Your task to perform on an android device: check data usage Image 0: 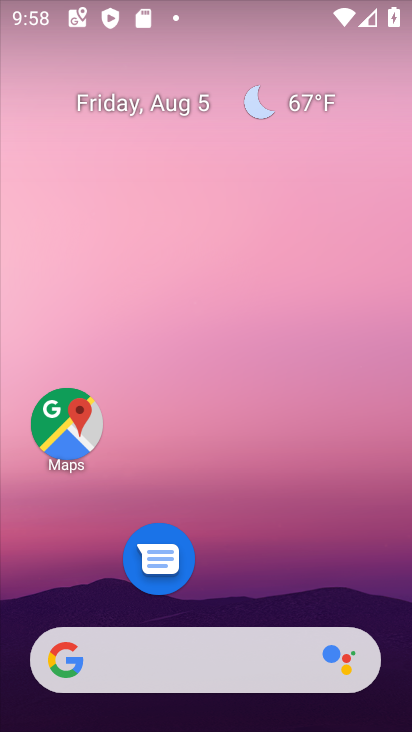
Step 0: drag from (211, 607) to (257, 145)
Your task to perform on an android device: check data usage Image 1: 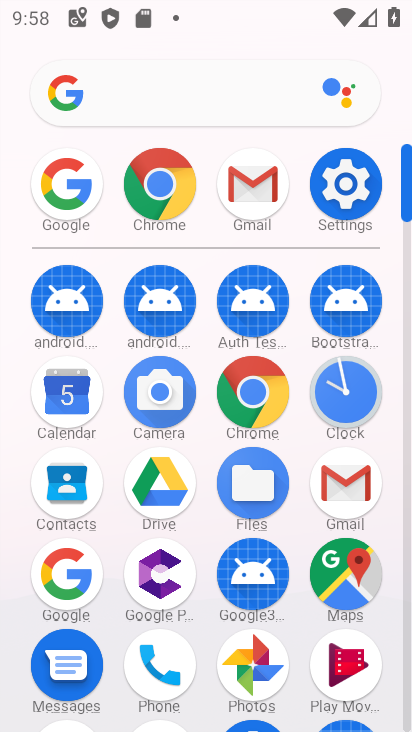
Step 1: click (344, 190)
Your task to perform on an android device: check data usage Image 2: 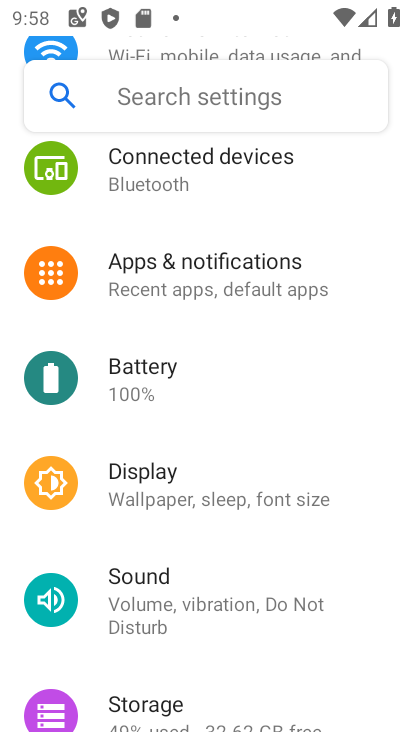
Step 2: drag from (197, 325) to (143, 542)
Your task to perform on an android device: check data usage Image 3: 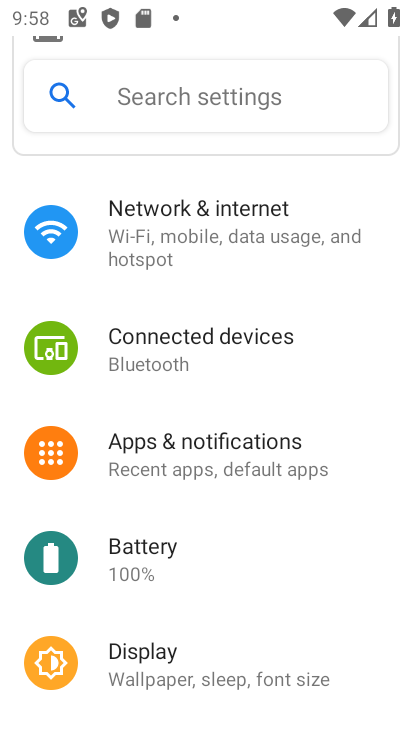
Step 3: click (212, 248)
Your task to perform on an android device: check data usage Image 4: 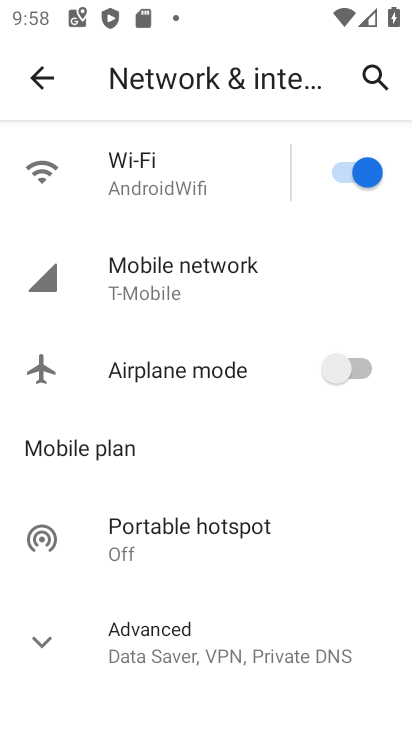
Step 4: click (177, 274)
Your task to perform on an android device: check data usage Image 5: 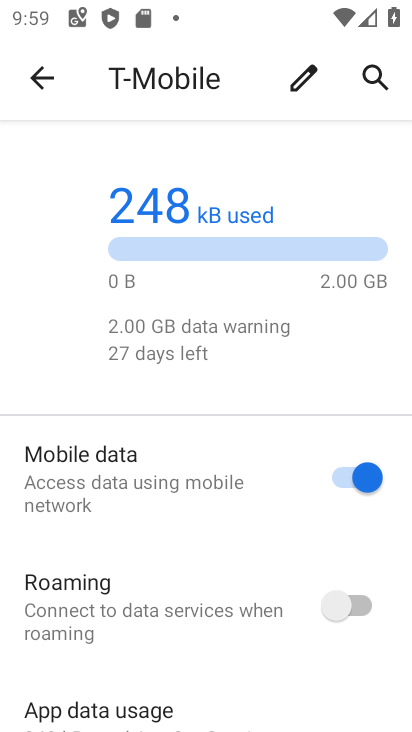
Step 5: drag from (95, 568) to (107, 234)
Your task to perform on an android device: check data usage Image 6: 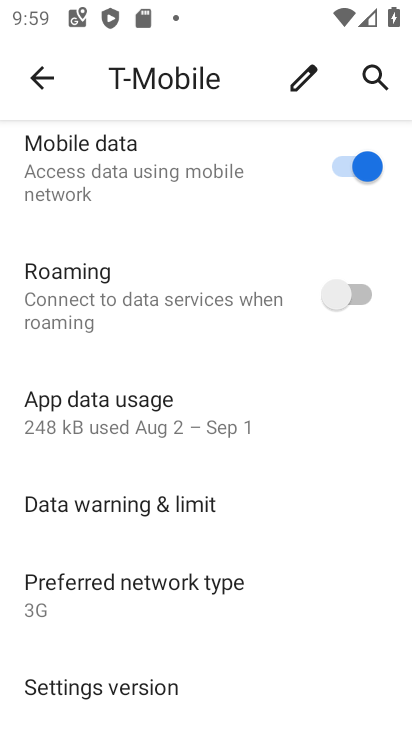
Step 6: click (110, 410)
Your task to perform on an android device: check data usage Image 7: 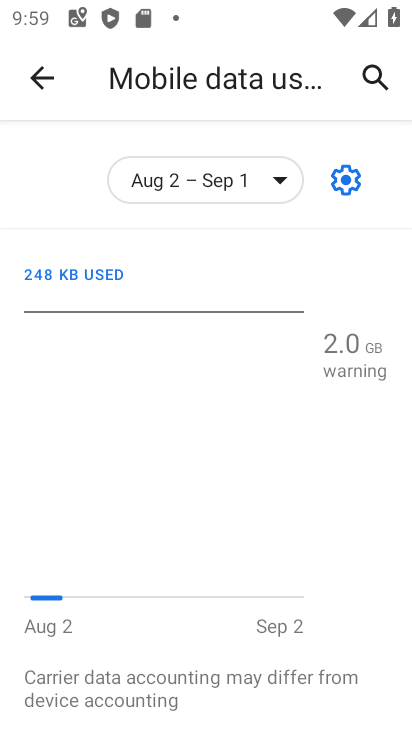
Step 7: task complete